Your task to perform on an android device: Open privacy settings Image 0: 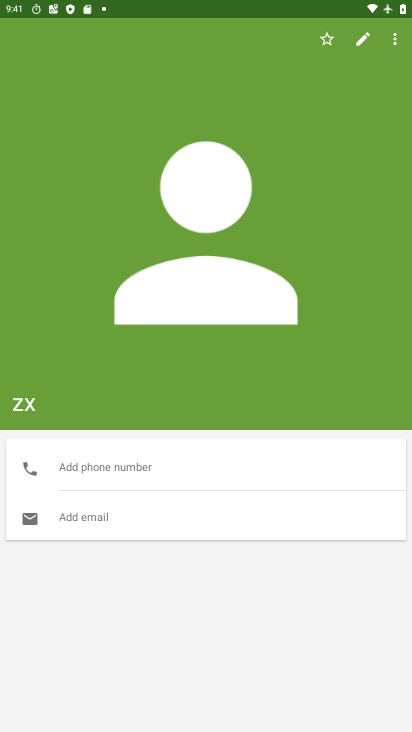
Step 0: press home button
Your task to perform on an android device: Open privacy settings Image 1: 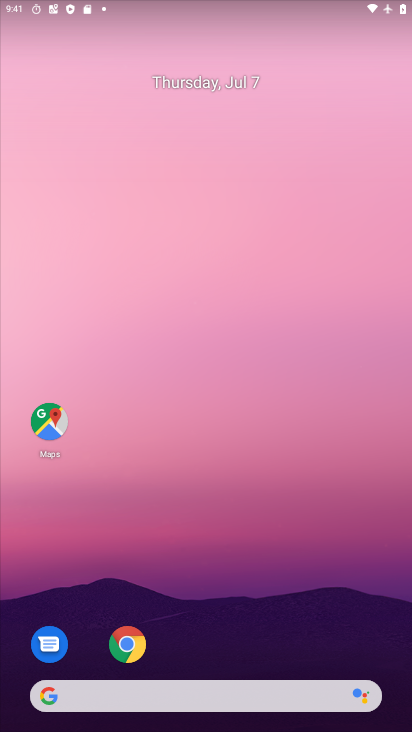
Step 1: drag from (364, 637) to (279, 196)
Your task to perform on an android device: Open privacy settings Image 2: 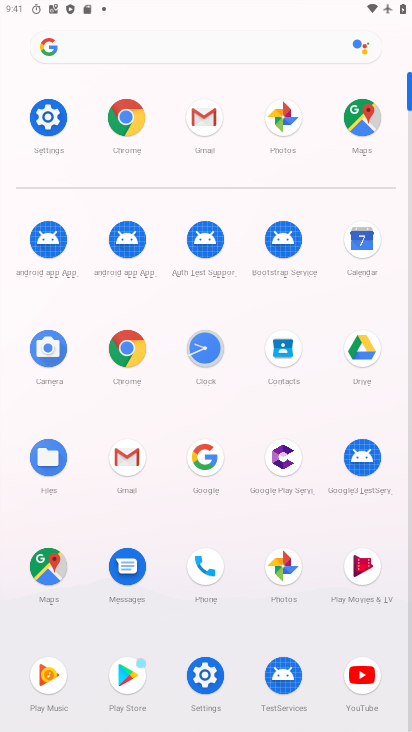
Step 2: click (61, 124)
Your task to perform on an android device: Open privacy settings Image 3: 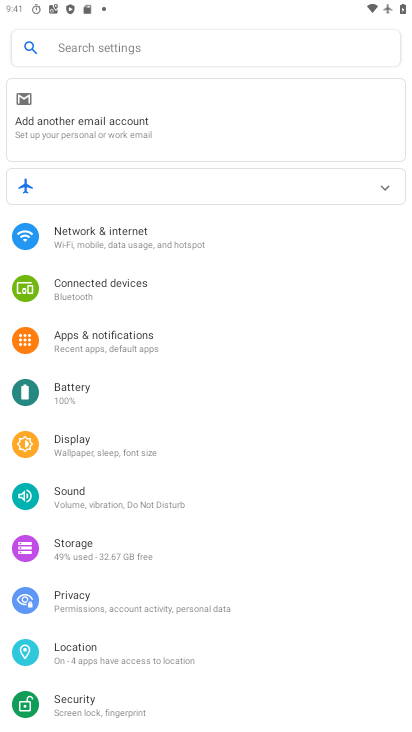
Step 3: drag from (333, 658) to (294, 201)
Your task to perform on an android device: Open privacy settings Image 4: 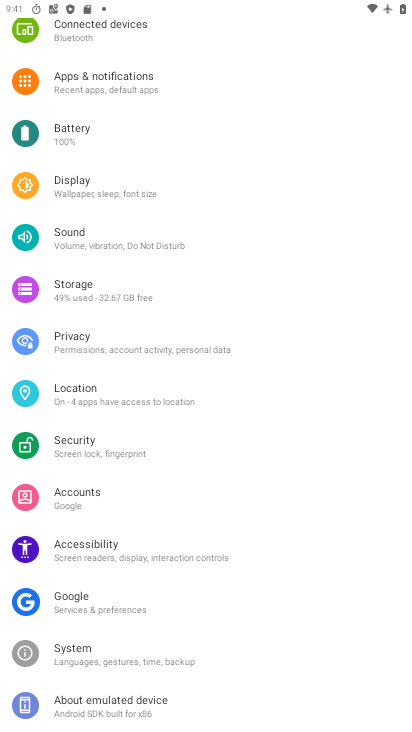
Step 4: click (81, 339)
Your task to perform on an android device: Open privacy settings Image 5: 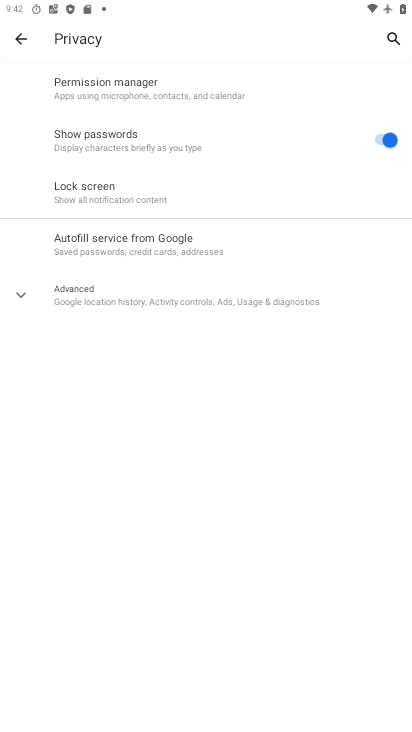
Step 5: task complete